Your task to perform on an android device: Open network settings Image 0: 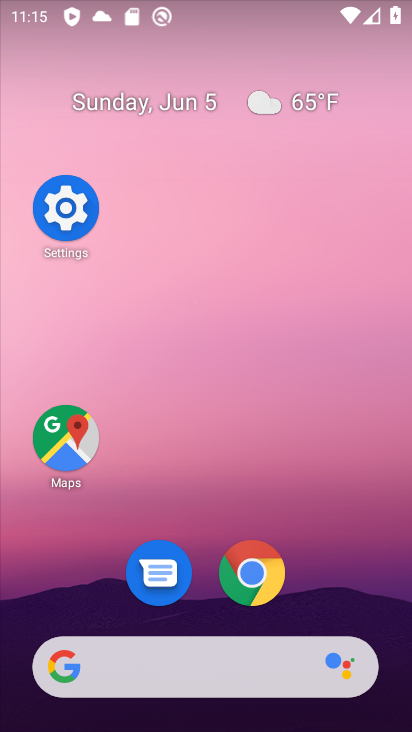
Step 0: click (69, 211)
Your task to perform on an android device: Open network settings Image 1: 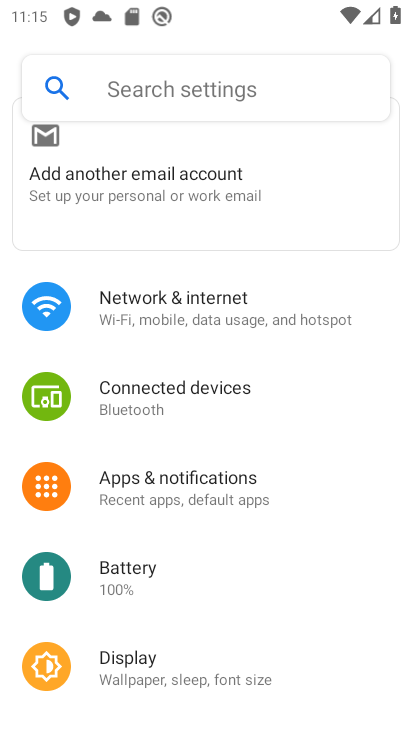
Step 1: click (272, 319)
Your task to perform on an android device: Open network settings Image 2: 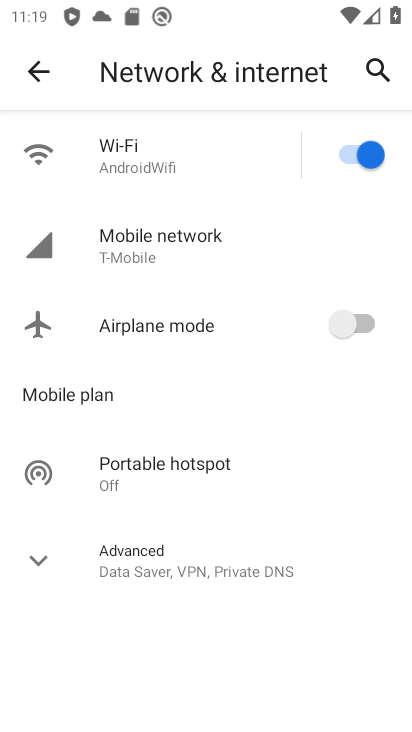
Step 2: task complete